Your task to perform on an android device: toggle improve location accuracy Image 0: 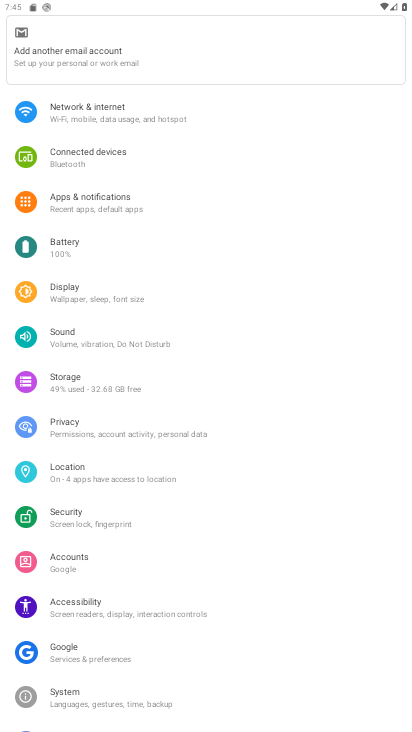
Step 0: click (103, 480)
Your task to perform on an android device: toggle improve location accuracy Image 1: 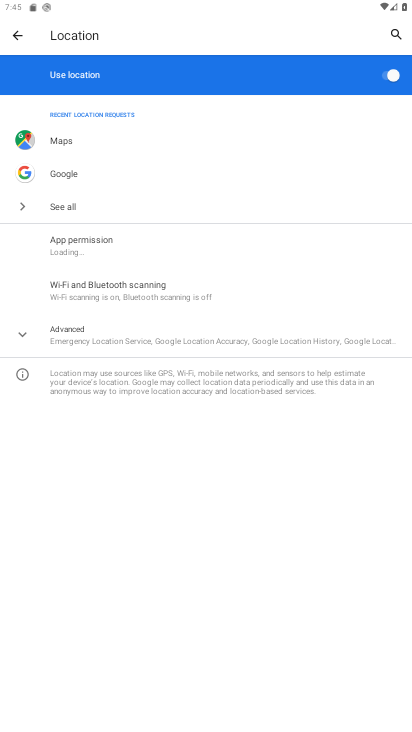
Step 1: click (97, 332)
Your task to perform on an android device: toggle improve location accuracy Image 2: 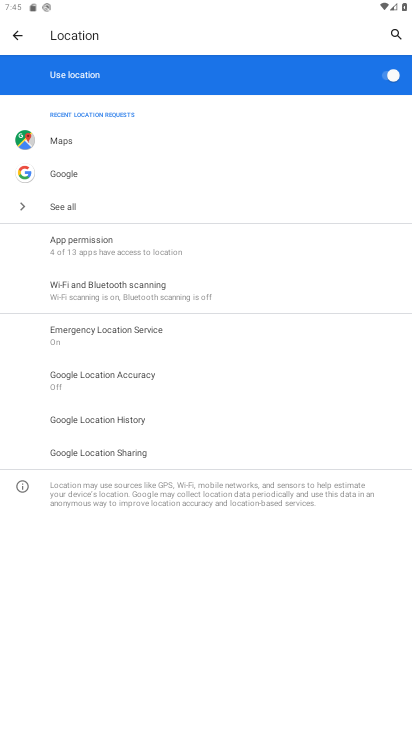
Step 2: click (120, 379)
Your task to perform on an android device: toggle improve location accuracy Image 3: 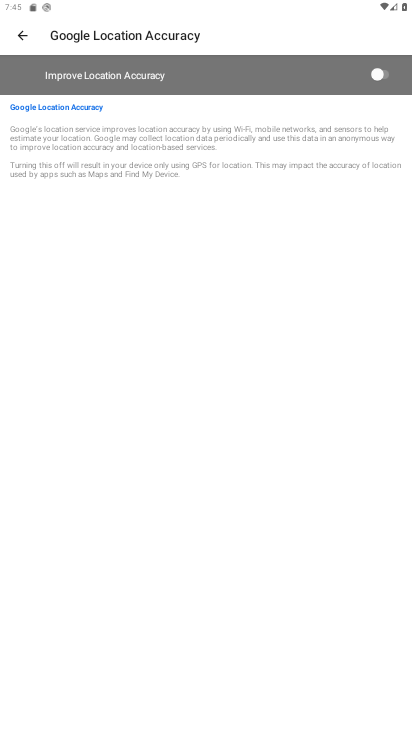
Step 3: click (381, 82)
Your task to perform on an android device: toggle improve location accuracy Image 4: 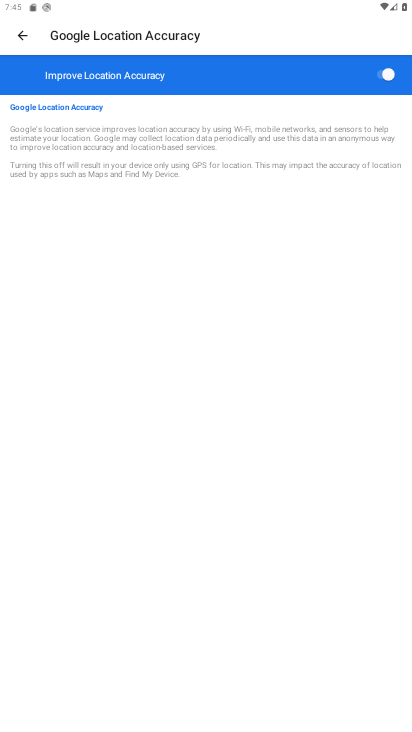
Step 4: task complete